Your task to perform on an android device: change timer sound Image 0: 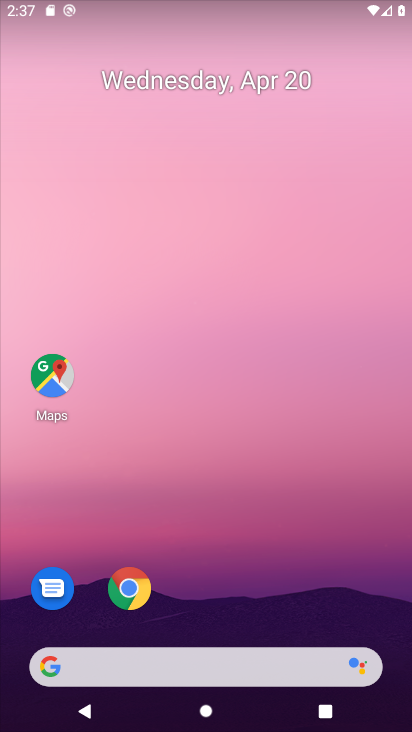
Step 0: drag from (344, 582) to (332, 152)
Your task to perform on an android device: change timer sound Image 1: 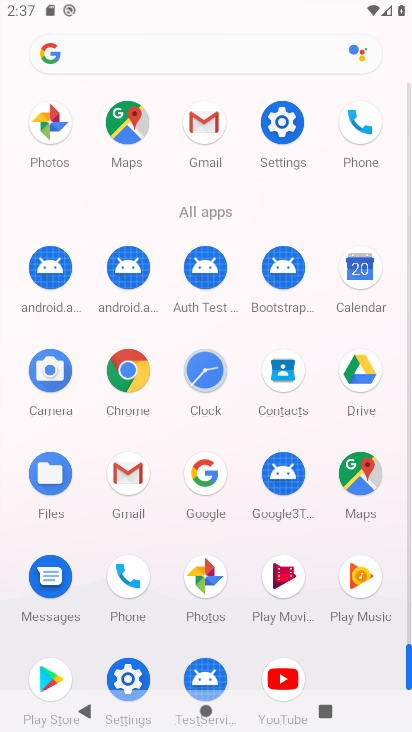
Step 1: click (203, 382)
Your task to perform on an android device: change timer sound Image 2: 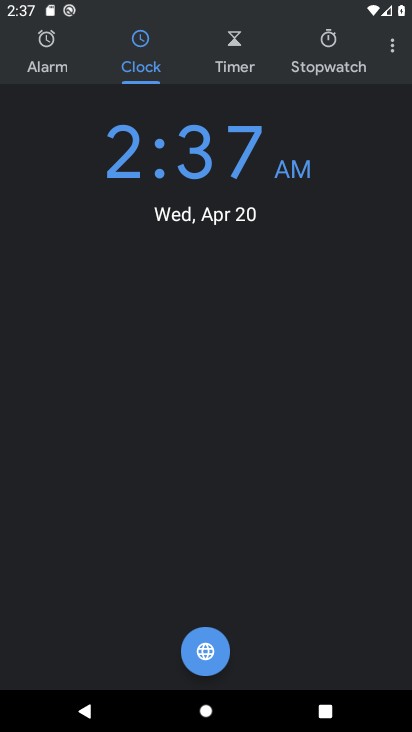
Step 2: click (395, 47)
Your task to perform on an android device: change timer sound Image 3: 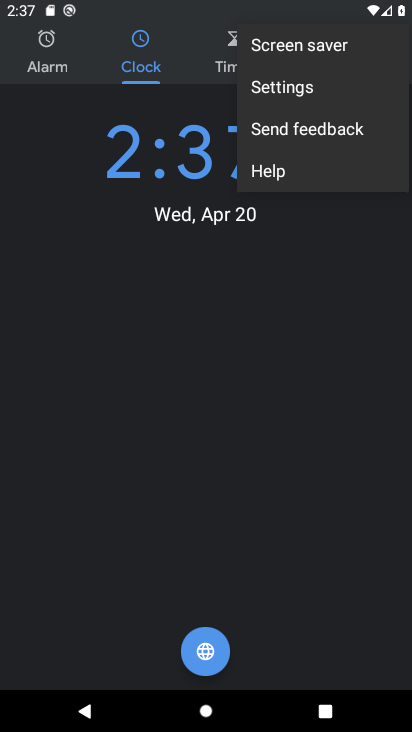
Step 3: click (300, 87)
Your task to perform on an android device: change timer sound Image 4: 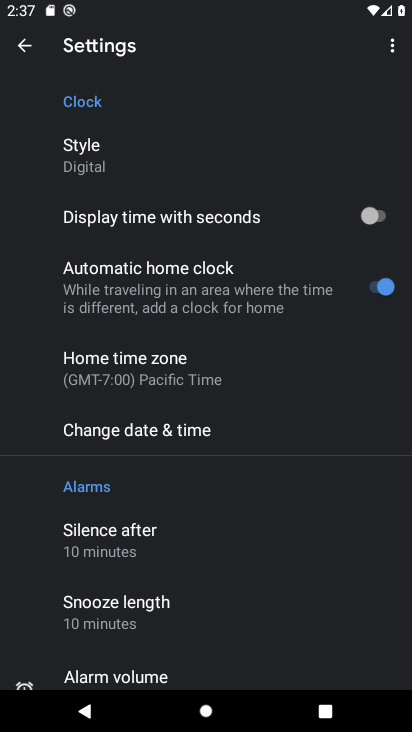
Step 4: drag from (317, 594) to (315, 435)
Your task to perform on an android device: change timer sound Image 5: 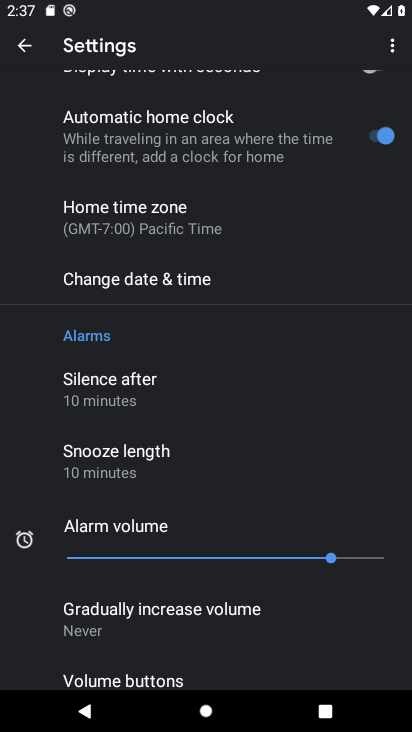
Step 5: drag from (295, 632) to (298, 436)
Your task to perform on an android device: change timer sound Image 6: 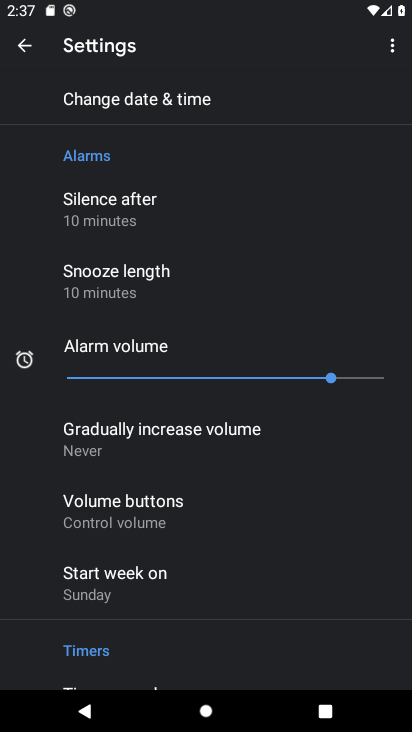
Step 6: drag from (271, 609) to (280, 410)
Your task to perform on an android device: change timer sound Image 7: 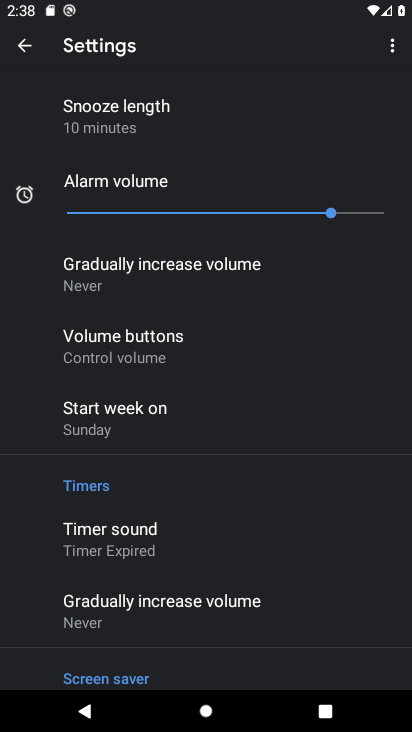
Step 7: drag from (289, 519) to (291, 419)
Your task to perform on an android device: change timer sound Image 8: 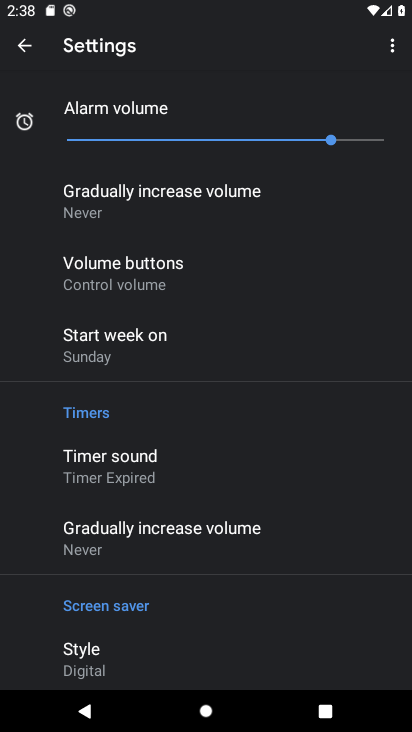
Step 8: click (121, 469)
Your task to perform on an android device: change timer sound Image 9: 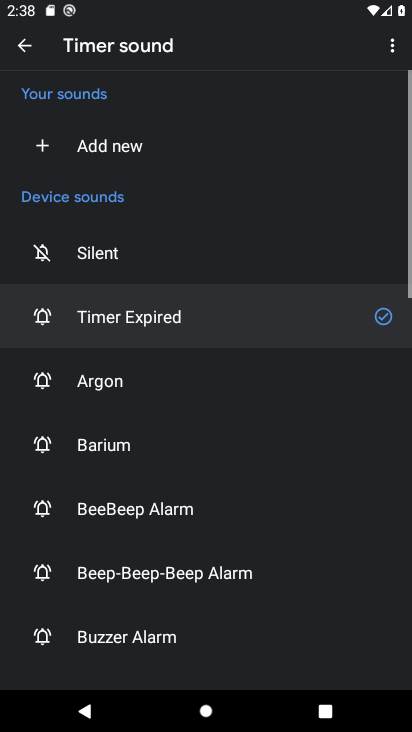
Step 9: click (60, 443)
Your task to perform on an android device: change timer sound Image 10: 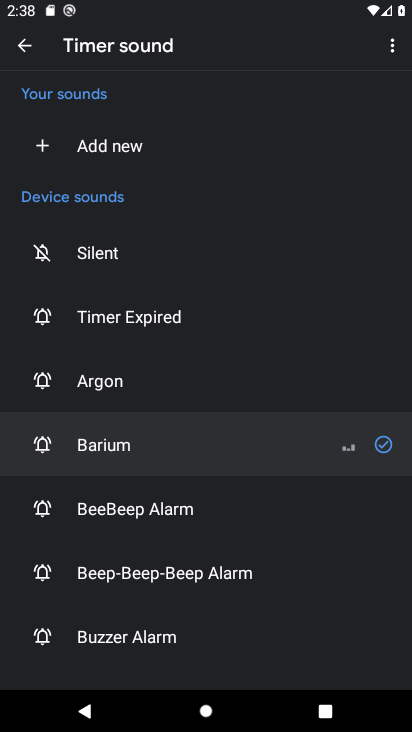
Step 10: task complete